Your task to perform on an android device: Empty the shopping cart on bestbuy. Search for "panasonic triple a" on bestbuy, select the first entry, and add it to the cart. Image 0: 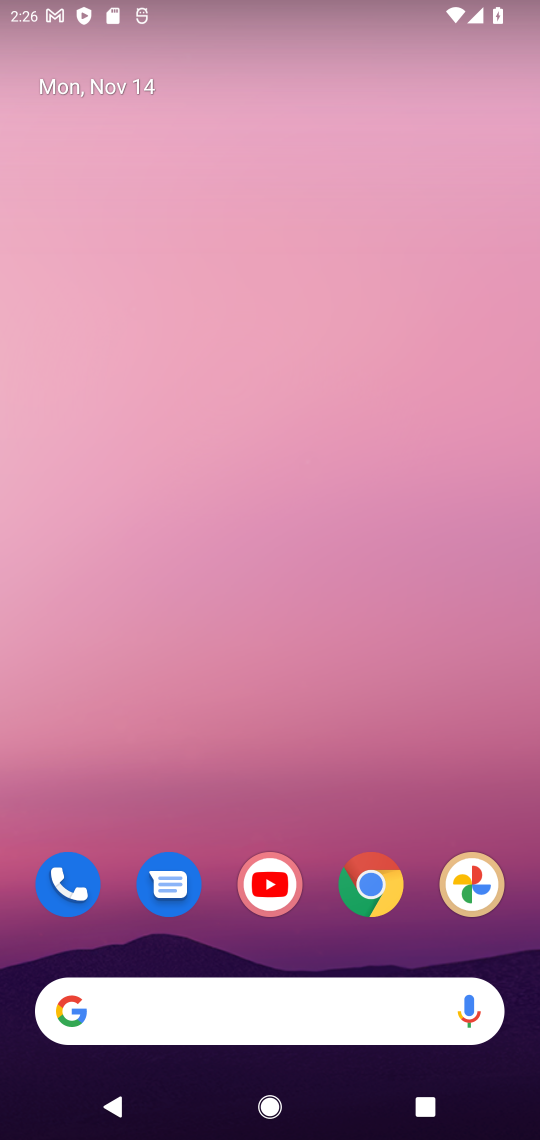
Step 0: click (351, 867)
Your task to perform on an android device: Empty the shopping cart on bestbuy. Search for "panasonic triple a" on bestbuy, select the first entry, and add it to the cart. Image 1: 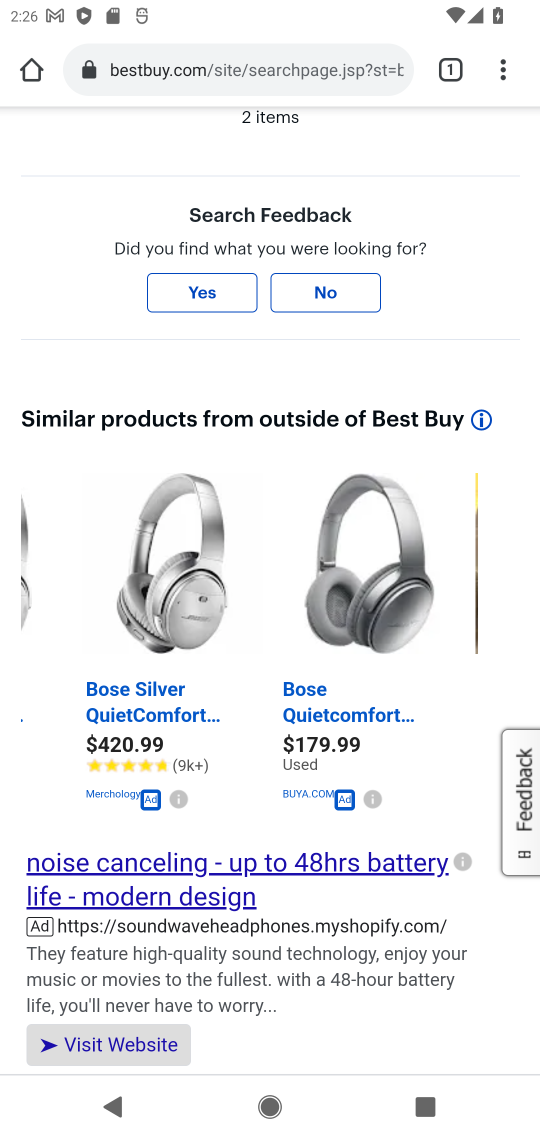
Step 1: drag from (365, 331) to (301, 863)
Your task to perform on an android device: Empty the shopping cart on bestbuy. Search for "panasonic triple a" on bestbuy, select the first entry, and add it to the cart. Image 2: 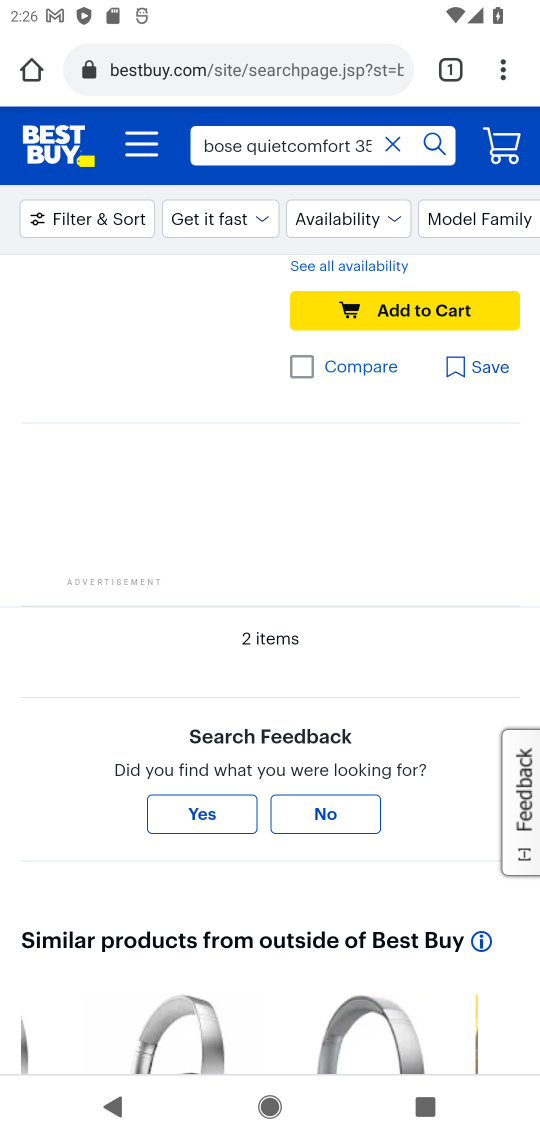
Step 2: click (497, 147)
Your task to perform on an android device: Empty the shopping cart on bestbuy. Search for "panasonic triple a" on bestbuy, select the first entry, and add it to the cart. Image 3: 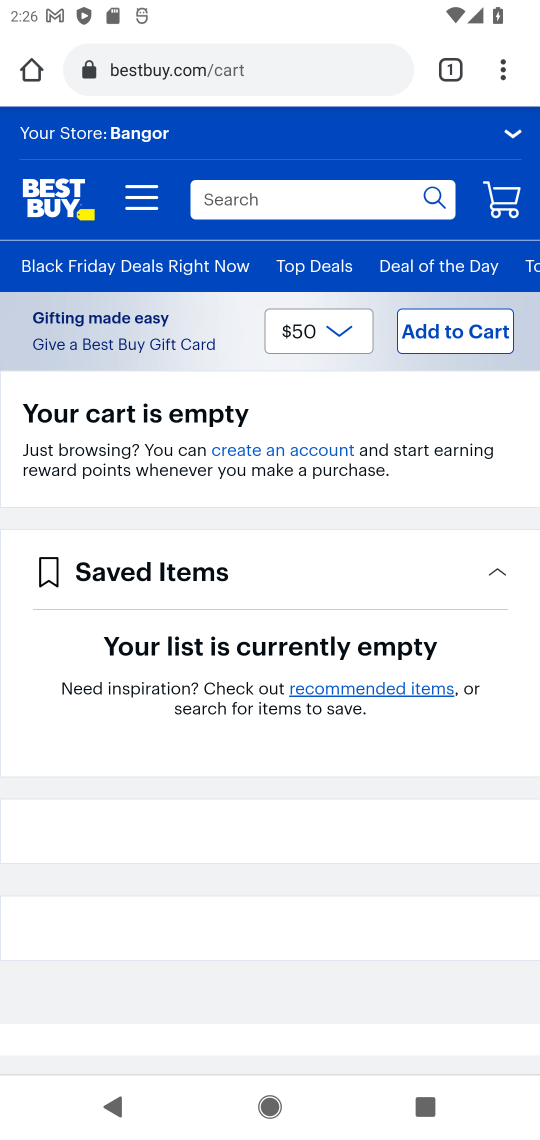
Step 3: click (394, 198)
Your task to perform on an android device: Empty the shopping cart on bestbuy. Search for "panasonic triple a" on bestbuy, select the first entry, and add it to the cart. Image 4: 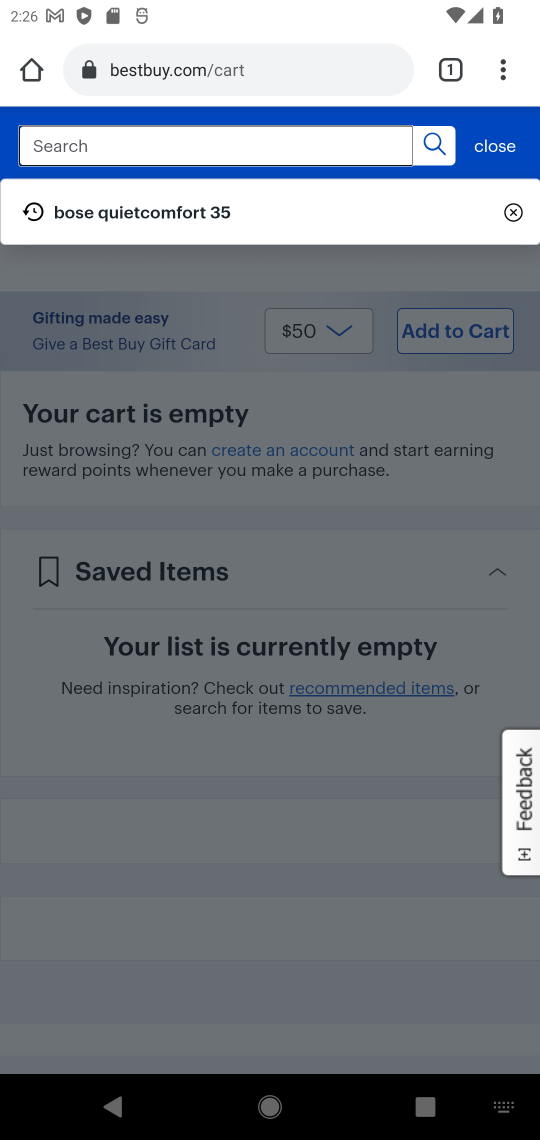
Step 4: type "panasonic triple a"
Your task to perform on an android device: Empty the shopping cart on bestbuy. Search for "panasonic triple a" on bestbuy, select the first entry, and add it to the cart. Image 5: 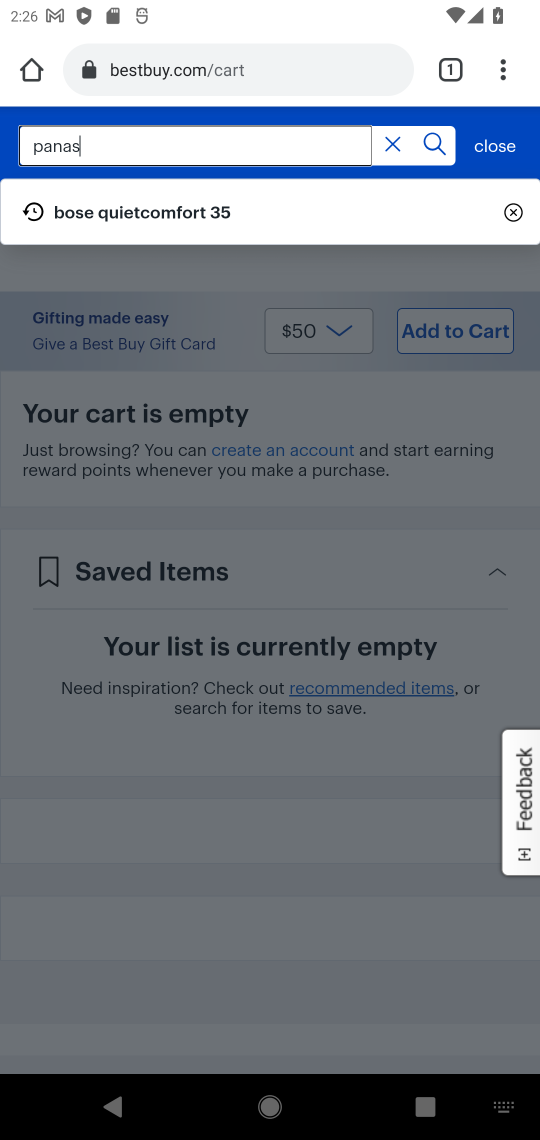
Step 5: press enter
Your task to perform on an android device: Empty the shopping cart on bestbuy. Search for "panasonic triple a" on bestbuy, select the first entry, and add it to the cart. Image 6: 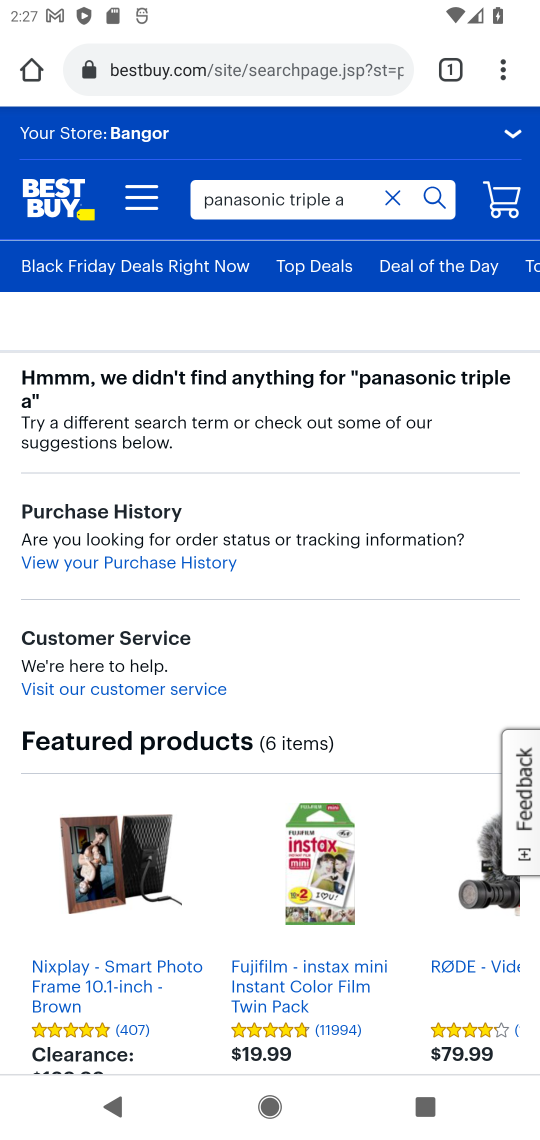
Step 6: task complete